Your task to perform on an android device: turn off translation in the chrome app Image 0: 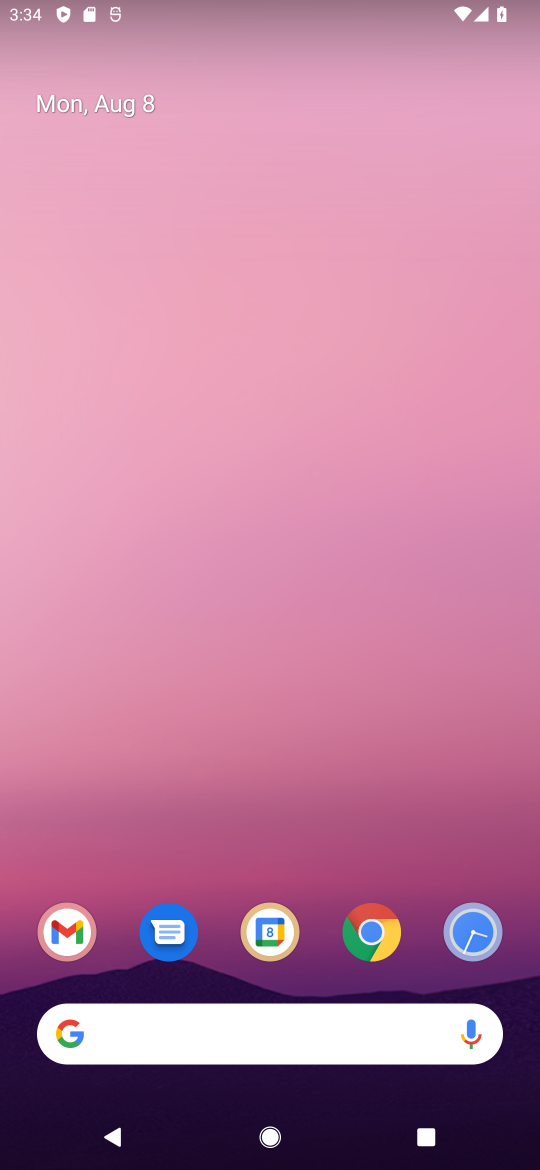
Step 0: click (376, 930)
Your task to perform on an android device: turn off translation in the chrome app Image 1: 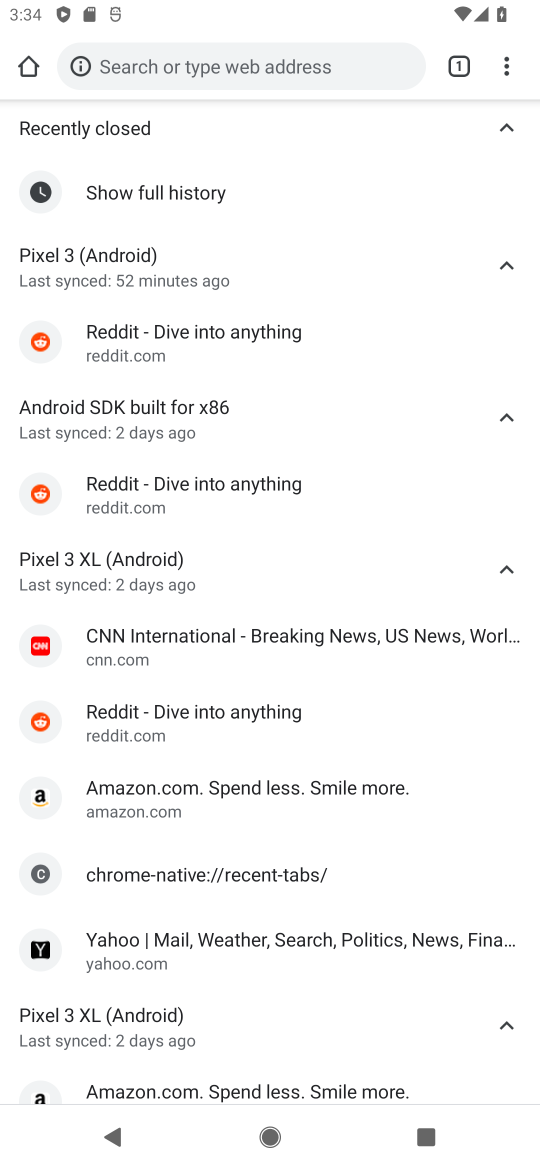
Step 1: click (507, 52)
Your task to perform on an android device: turn off translation in the chrome app Image 2: 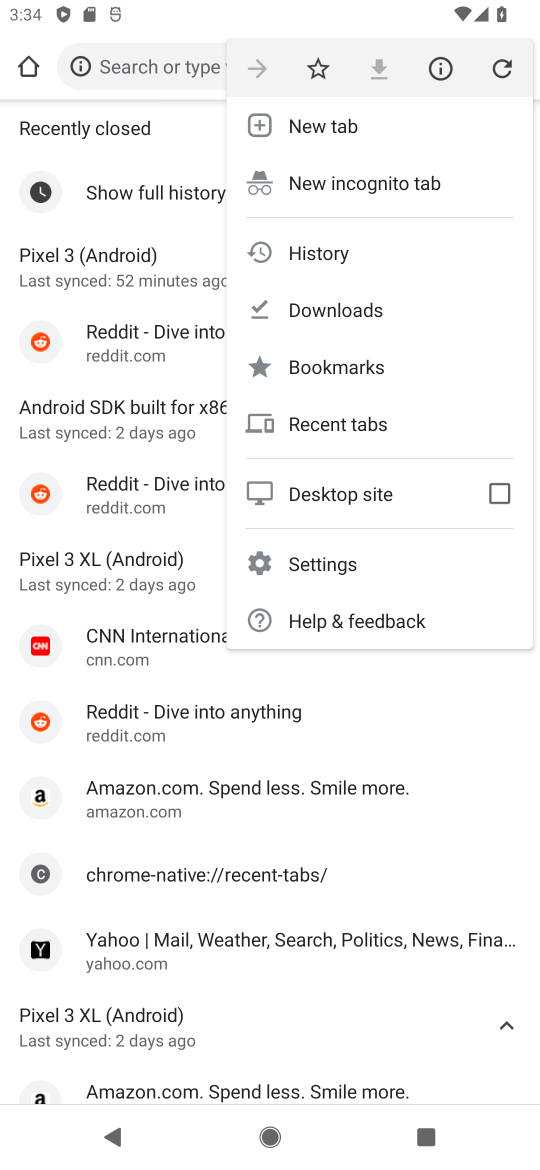
Step 2: click (354, 568)
Your task to perform on an android device: turn off translation in the chrome app Image 3: 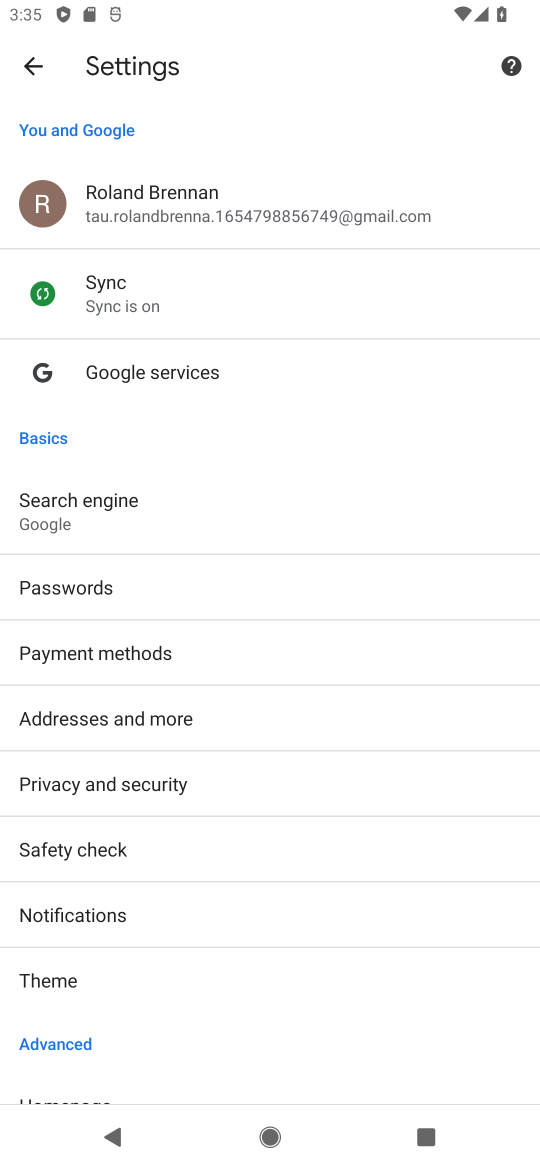
Step 3: drag from (220, 1021) to (343, 225)
Your task to perform on an android device: turn off translation in the chrome app Image 4: 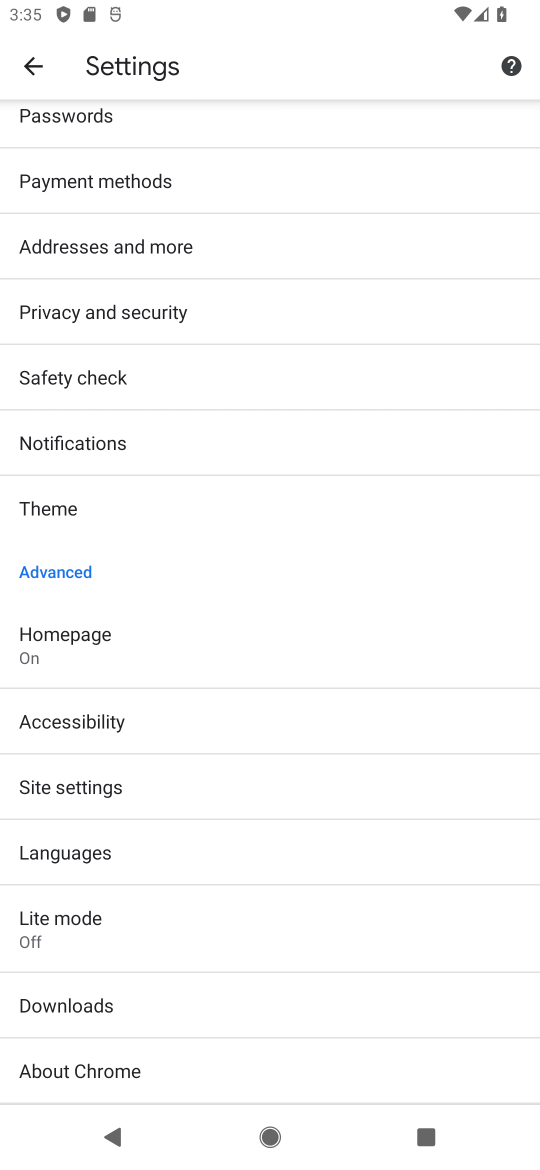
Step 4: click (116, 846)
Your task to perform on an android device: turn off translation in the chrome app Image 5: 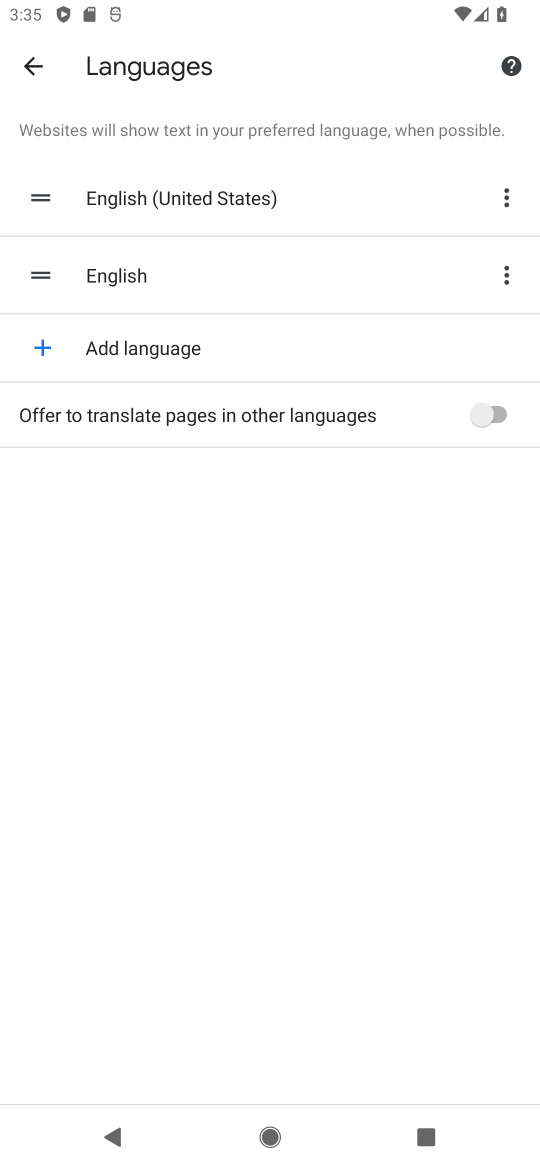
Step 5: task complete